Your task to perform on an android device: check out phone information Image 0: 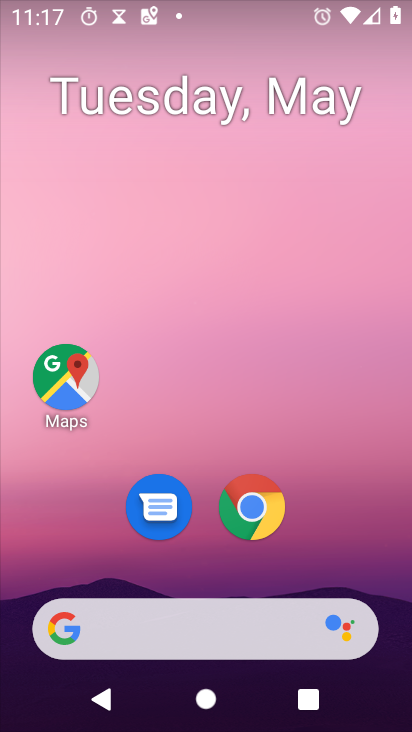
Step 0: press home button
Your task to perform on an android device: check out phone information Image 1: 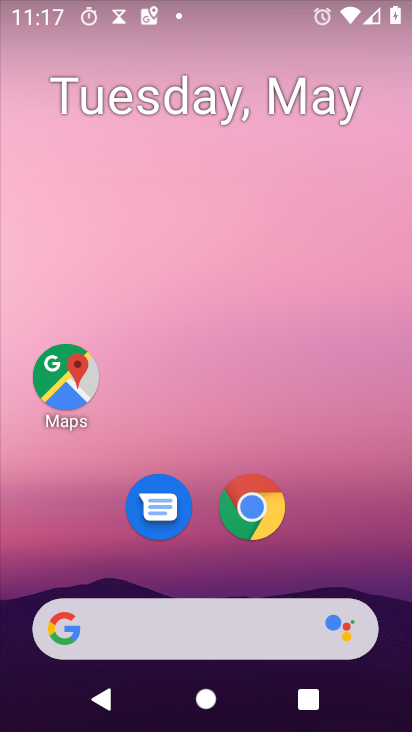
Step 1: drag from (23, 617) to (349, 92)
Your task to perform on an android device: check out phone information Image 2: 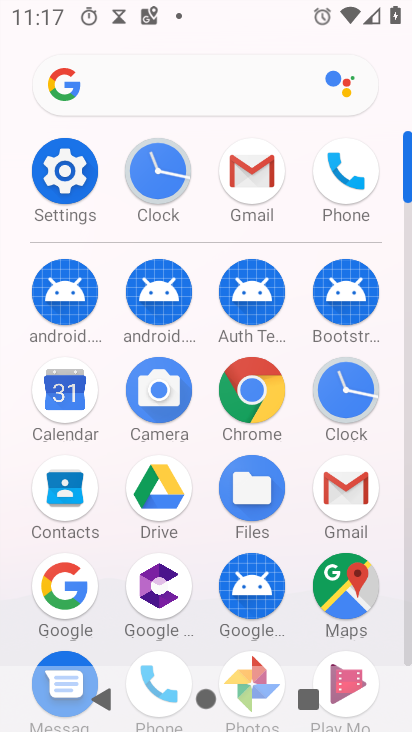
Step 2: click (348, 174)
Your task to perform on an android device: check out phone information Image 3: 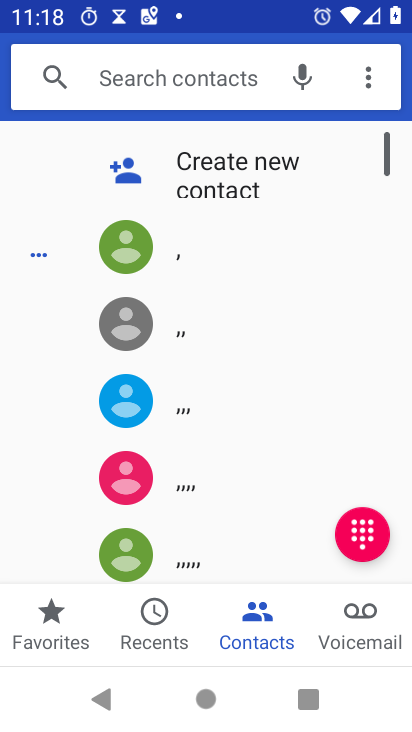
Step 3: click (141, 617)
Your task to perform on an android device: check out phone information Image 4: 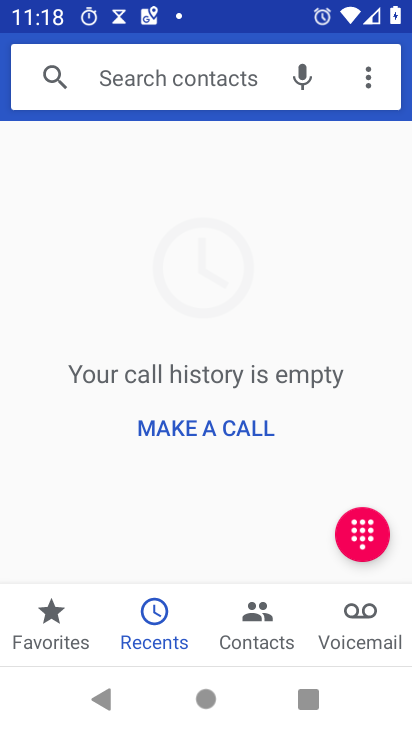
Step 4: task complete